Your task to perform on an android device: Open Google Chrome and open the bookmarks view Image 0: 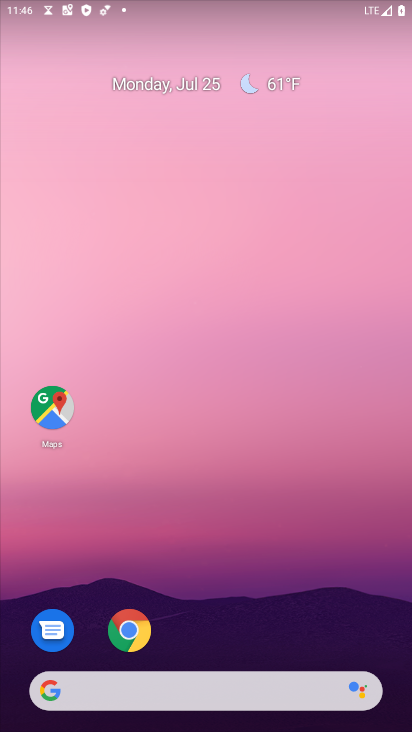
Step 0: click (118, 626)
Your task to perform on an android device: Open Google Chrome and open the bookmarks view Image 1: 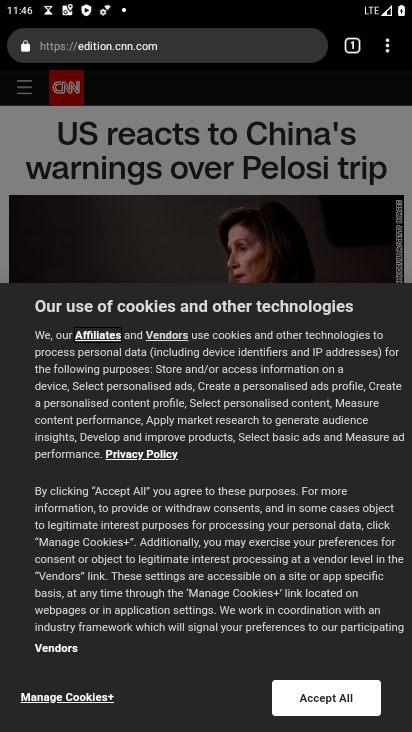
Step 1: click (379, 45)
Your task to perform on an android device: Open Google Chrome and open the bookmarks view Image 2: 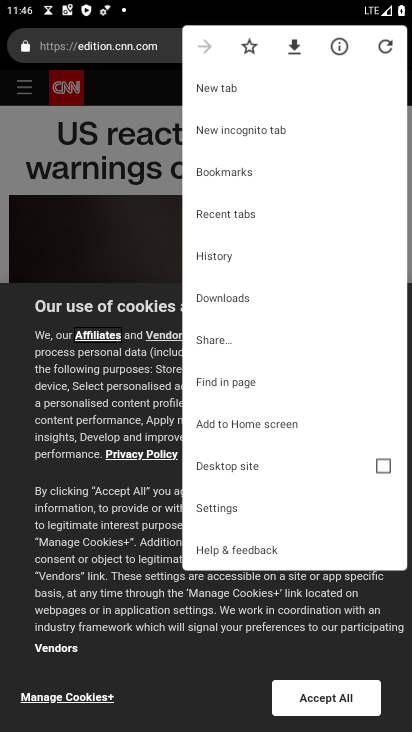
Step 2: click (221, 171)
Your task to perform on an android device: Open Google Chrome and open the bookmarks view Image 3: 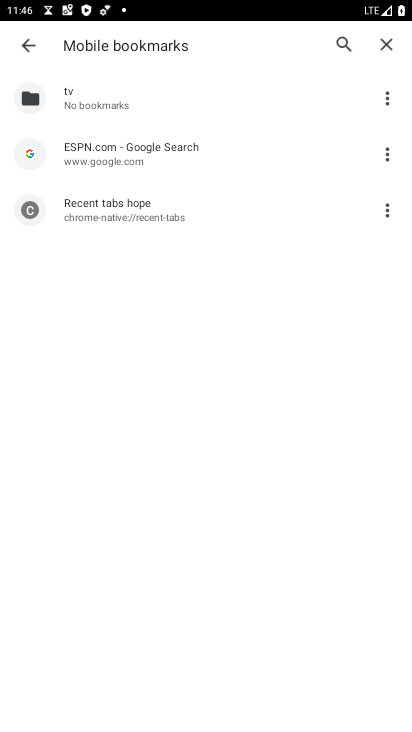
Step 3: task complete